Your task to perform on an android device: find photos in the google photos app Image 0: 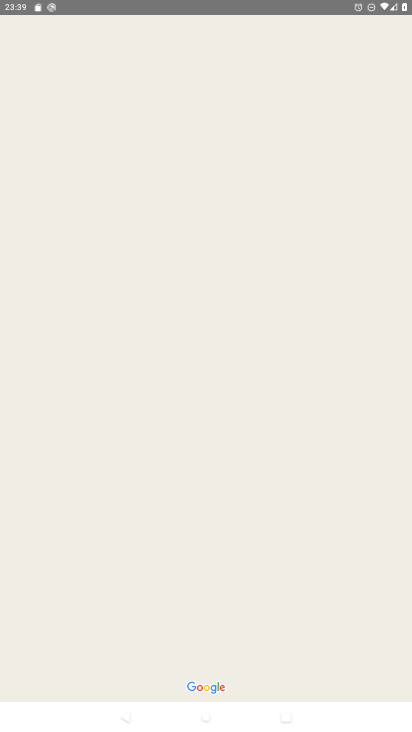
Step 0: click (200, 159)
Your task to perform on an android device: find photos in the google photos app Image 1: 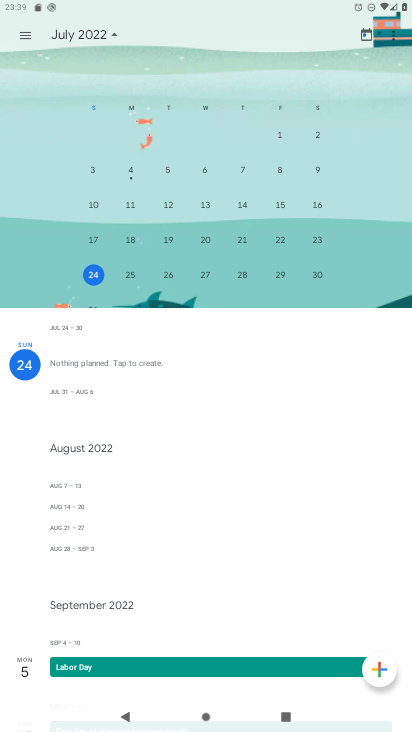
Step 1: drag from (234, 618) to (308, 64)
Your task to perform on an android device: find photos in the google photos app Image 2: 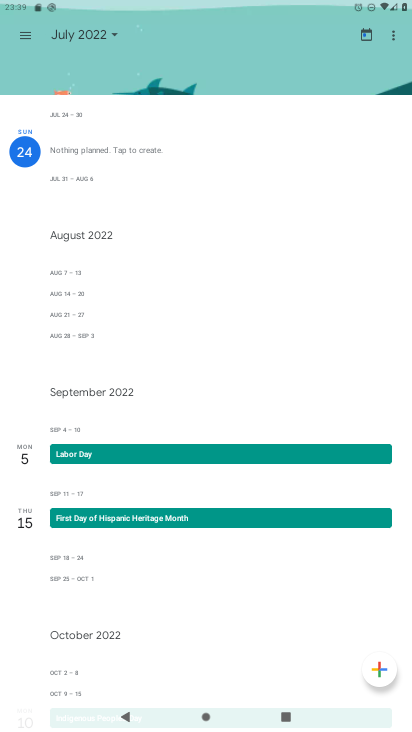
Step 2: drag from (237, 253) to (226, 670)
Your task to perform on an android device: find photos in the google photos app Image 3: 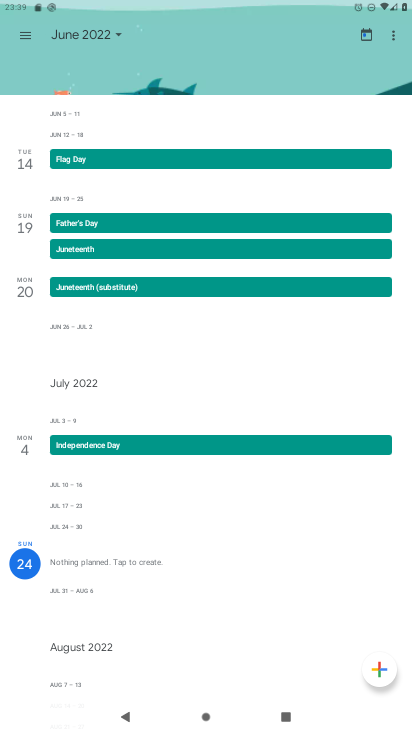
Step 3: press home button
Your task to perform on an android device: find photos in the google photos app Image 4: 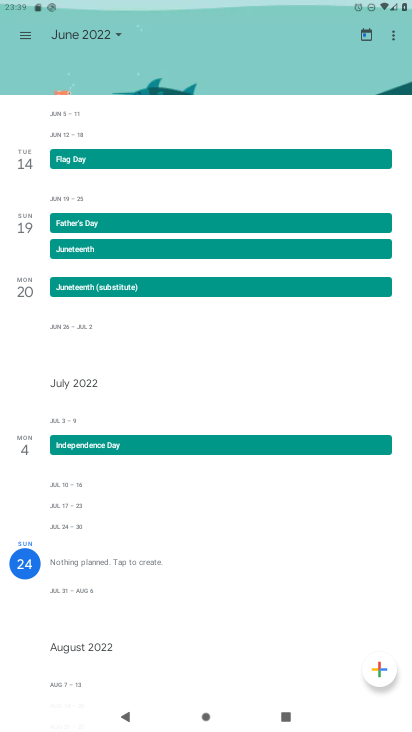
Step 4: drag from (189, 72) to (198, 4)
Your task to perform on an android device: find photos in the google photos app Image 5: 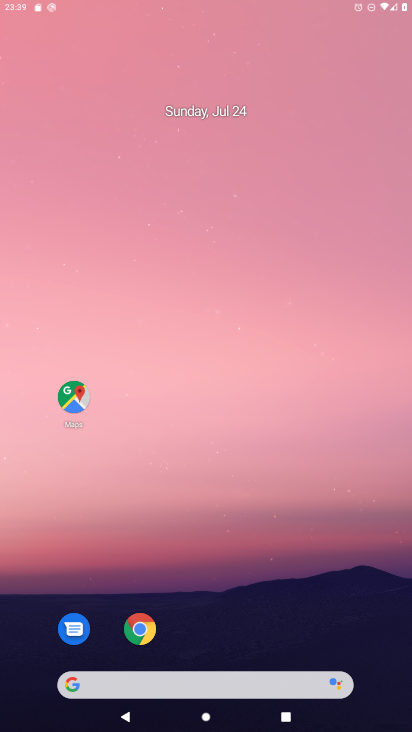
Step 5: press home button
Your task to perform on an android device: find photos in the google photos app Image 6: 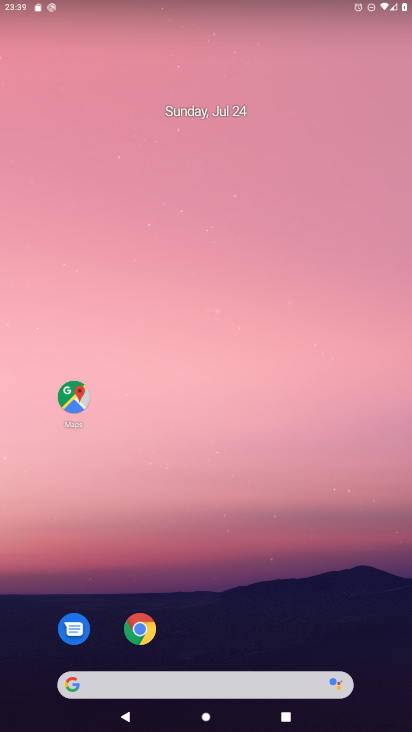
Step 6: drag from (205, 646) to (183, 4)
Your task to perform on an android device: find photos in the google photos app Image 7: 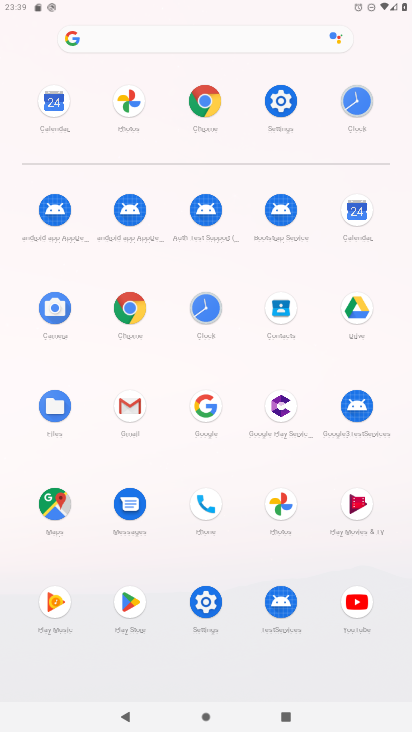
Step 7: click (274, 504)
Your task to perform on an android device: find photos in the google photos app Image 8: 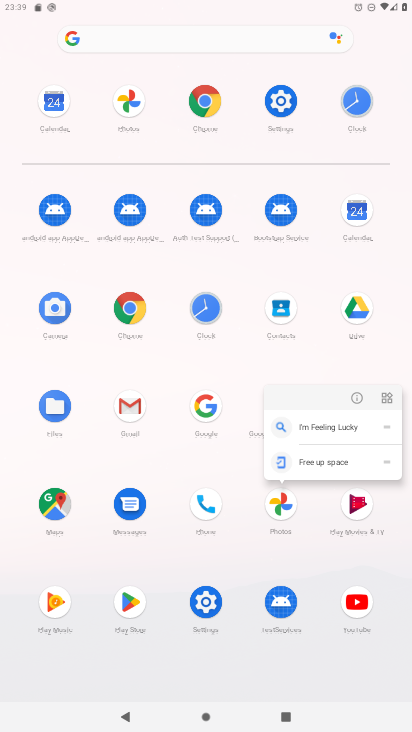
Step 8: click (346, 397)
Your task to perform on an android device: find photos in the google photos app Image 9: 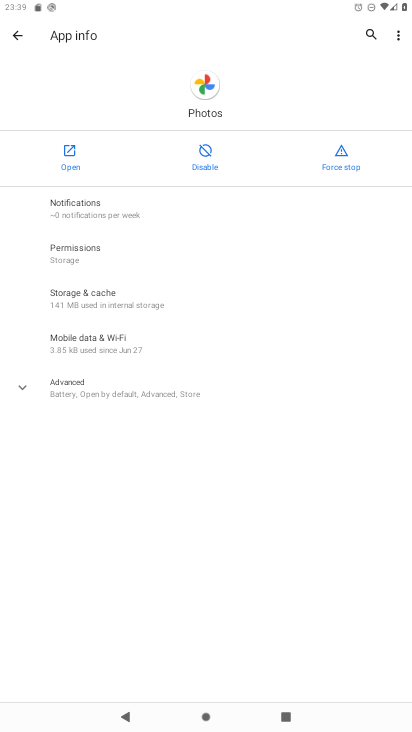
Step 9: click (76, 157)
Your task to perform on an android device: find photos in the google photos app Image 10: 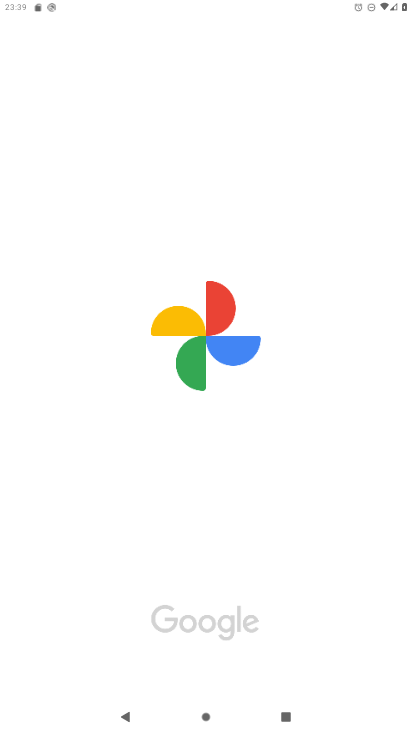
Step 10: drag from (267, 527) to (238, 263)
Your task to perform on an android device: find photos in the google photos app Image 11: 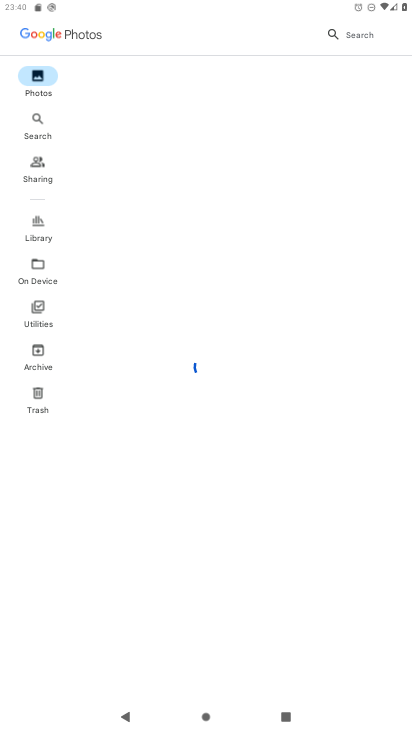
Step 11: drag from (181, 570) to (169, 281)
Your task to perform on an android device: find photos in the google photos app Image 12: 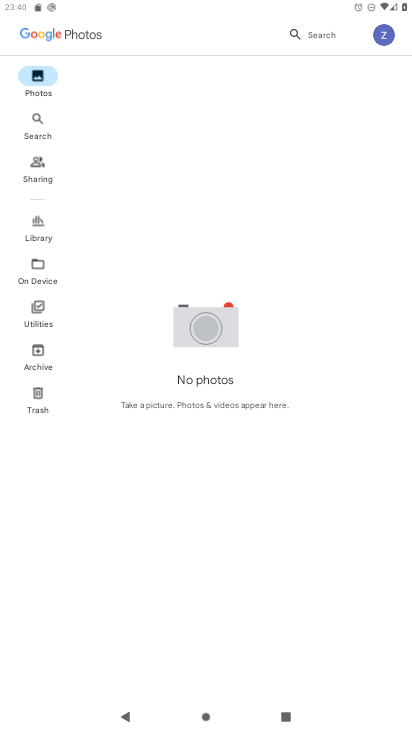
Step 12: click (35, 81)
Your task to perform on an android device: find photos in the google photos app Image 13: 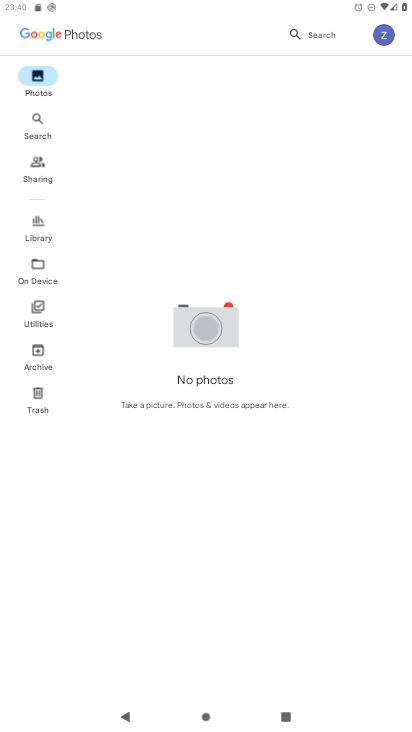
Step 13: drag from (212, 579) to (215, 334)
Your task to perform on an android device: find photos in the google photos app Image 14: 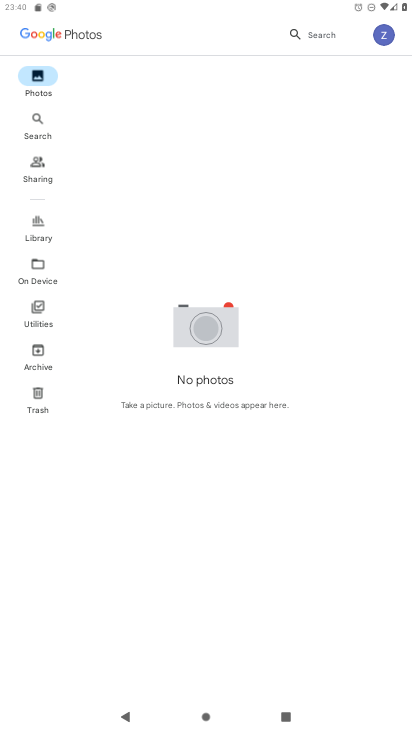
Step 14: click (198, 184)
Your task to perform on an android device: find photos in the google photos app Image 15: 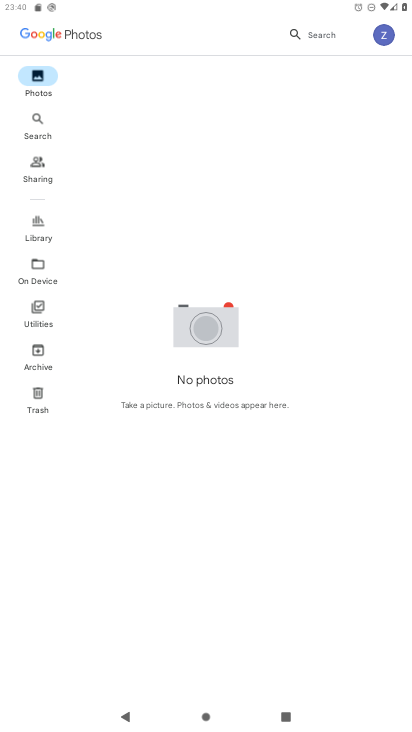
Step 15: click (201, 170)
Your task to perform on an android device: find photos in the google photos app Image 16: 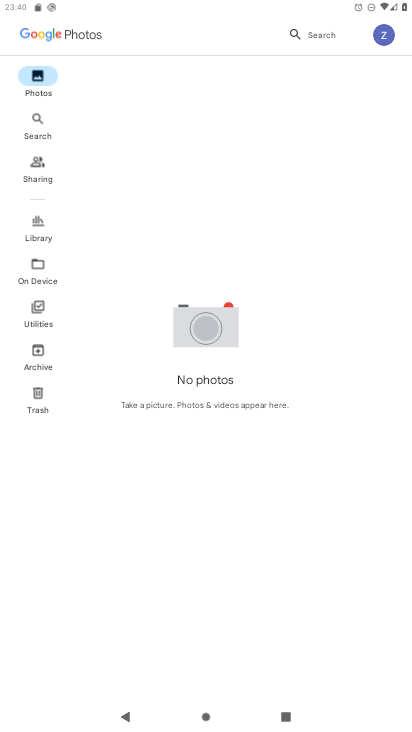
Step 16: click (201, 170)
Your task to perform on an android device: find photos in the google photos app Image 17: 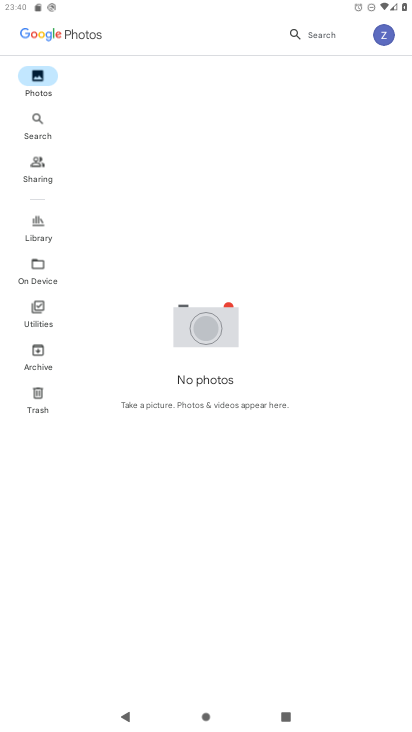
Step 17: click (261, 199)
Your task to perform on an android device: find photos in the google photos app Image 18: 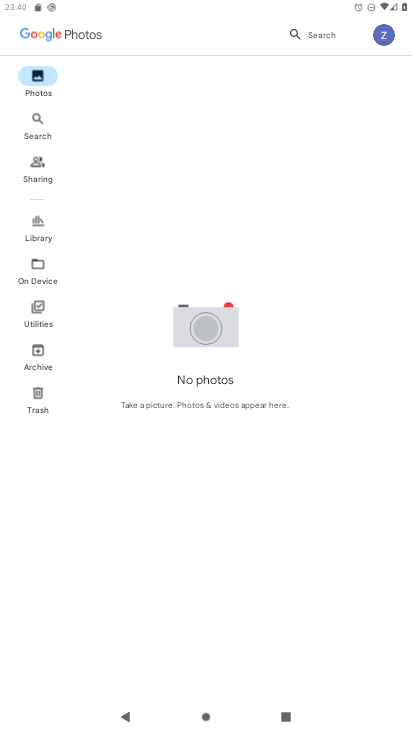
Step 18: click (184, 435)
Your task to perform on an android device: find photos in the google photos app Image 19: 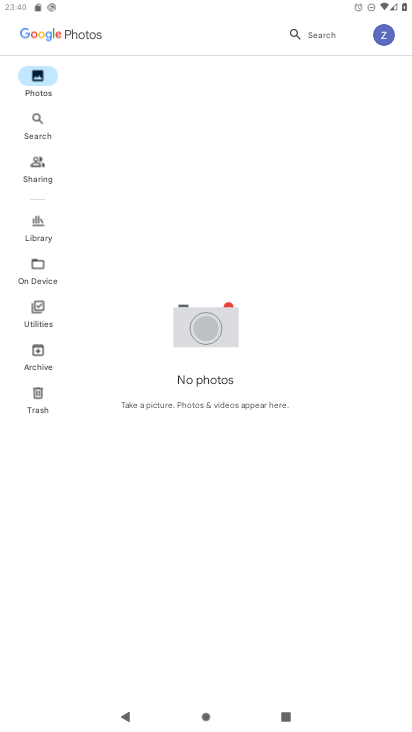
Step 19: click (206, 265)
Your task to perform on an android device: find photos in the google photos app Image 20: 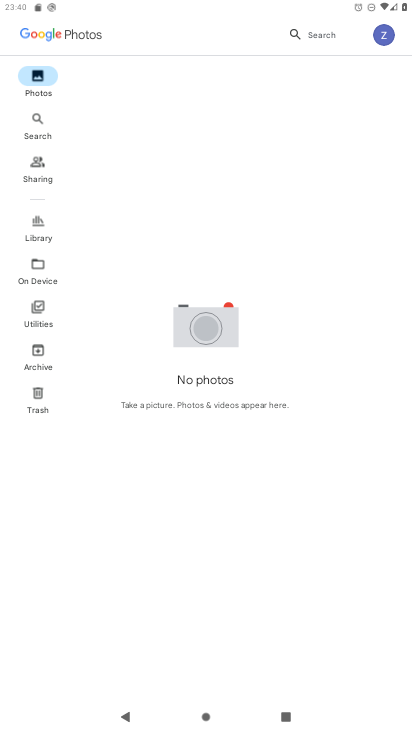
Step 20: click (206, 264)
Your task to perform on an android device: find photos in the google photos app Image 21: 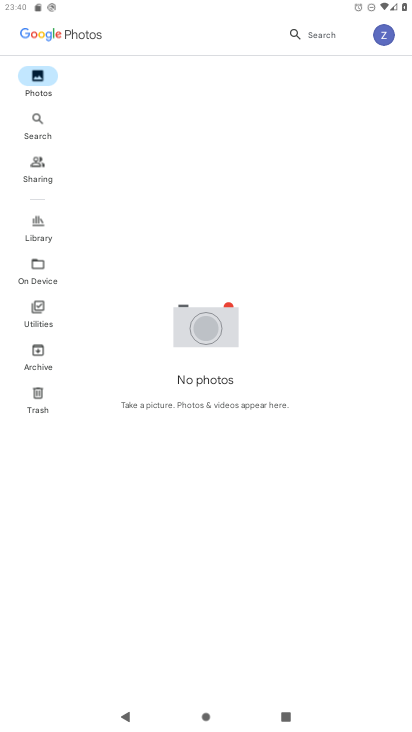
Step 21: click (231, 288)
Your task to perform on an android device: find photos in the google photos app Image 22: 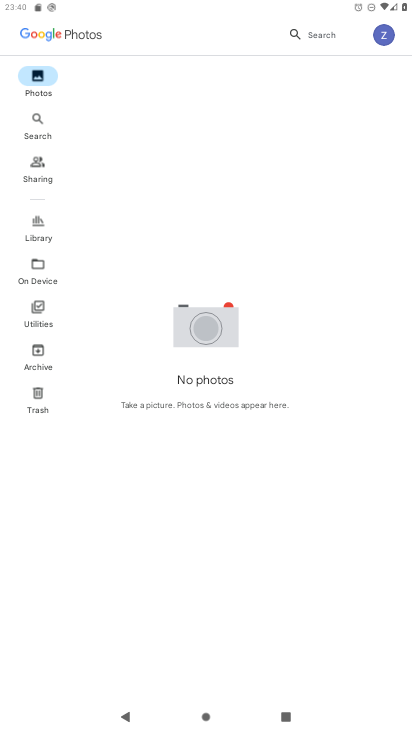
Step 22: click (173, 284)
Your task to perform on an android device: find photos in the google photos app Image 23: 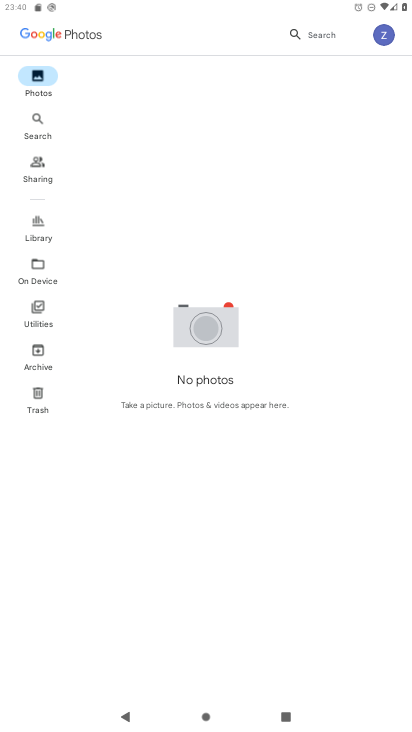
Step 23: click (173, 284)
Your task to perform on an android device: find photos in the google photos app Image 24: 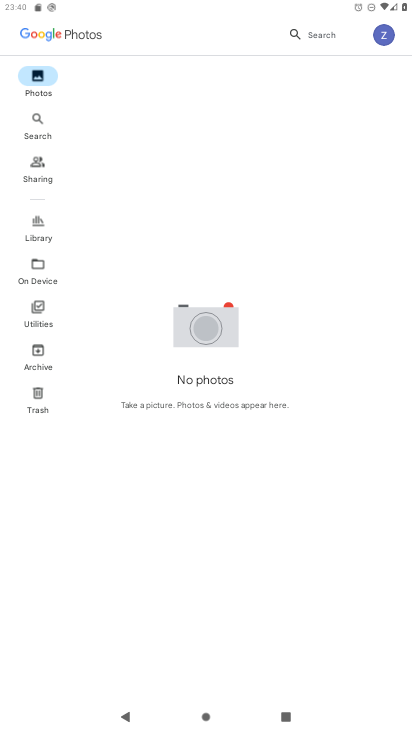
Step 24: click (175, 284)
Your task to perform on an android device: find photos in the google photos app Image 25: 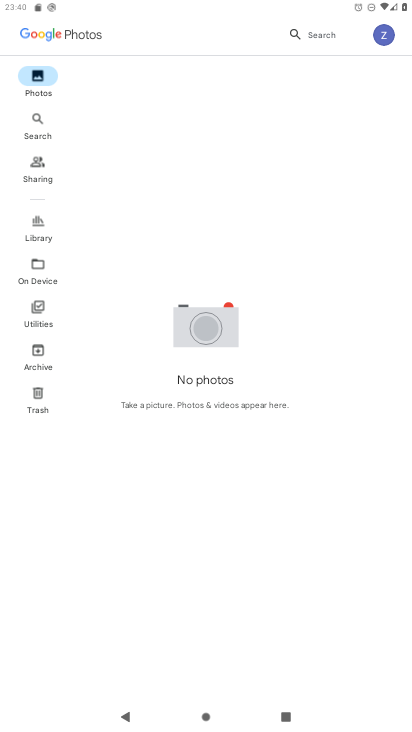
Step 25: click (173, 285)
Your task to perform on an android device: find photos in the google photos app Image 26: 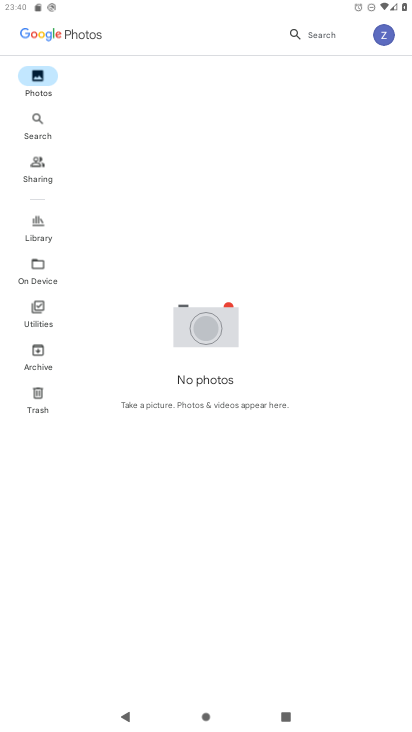
Step 26: click (178, 292)
Your task to perform on an android device: find photos in the google photos app Image 27: 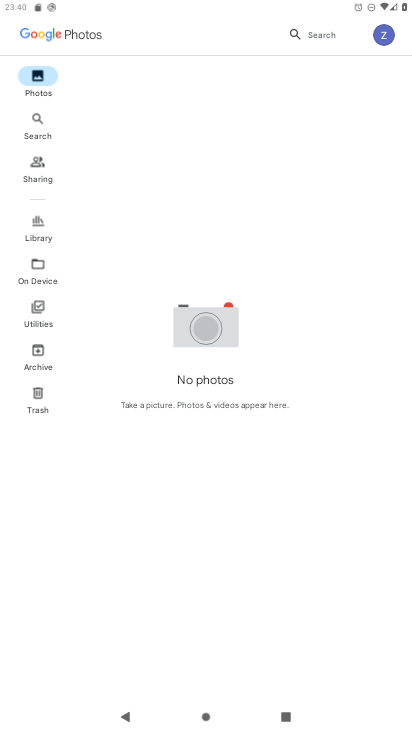
Step 27: drag from (237, 268) to (260, 171)
Your task to perform on an android device: find photos in the google photos app Image 28: 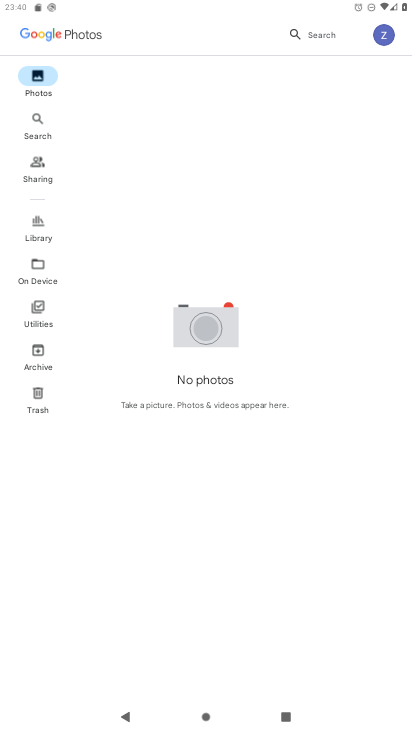
Step 28: click (285, 121)
Your task to perform on an android device: find photos in the google photos app Image 29: 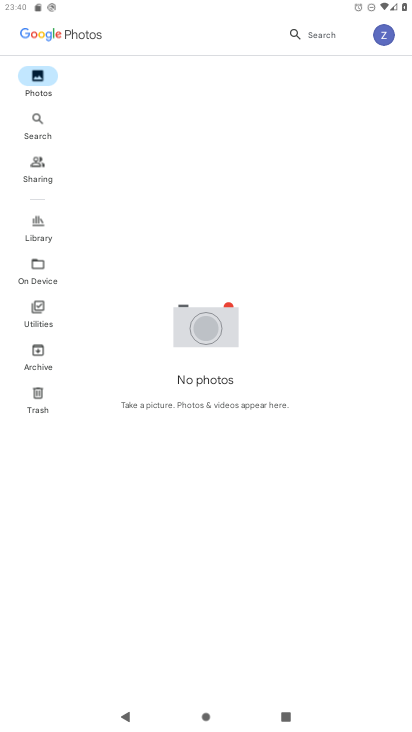
Step 29: drag from (288, 168) to (250, 237)
Your task to perform on an android device: find photos in the google photos app Image 30: 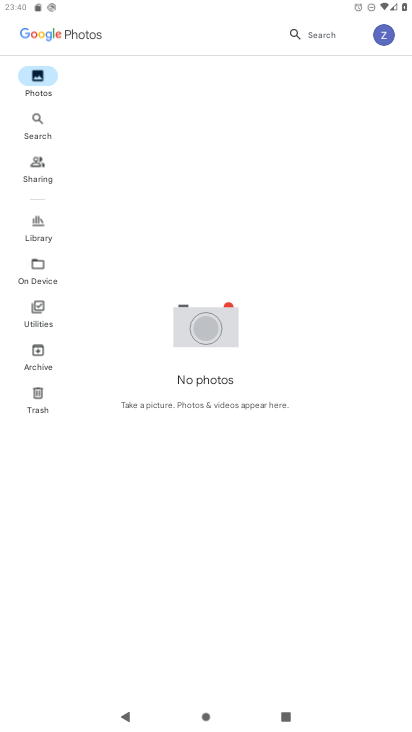
Step 30: drag from (236, 365) to (154, 276)
Your task to perform on an android device: find photos in the google photos app Image 31: 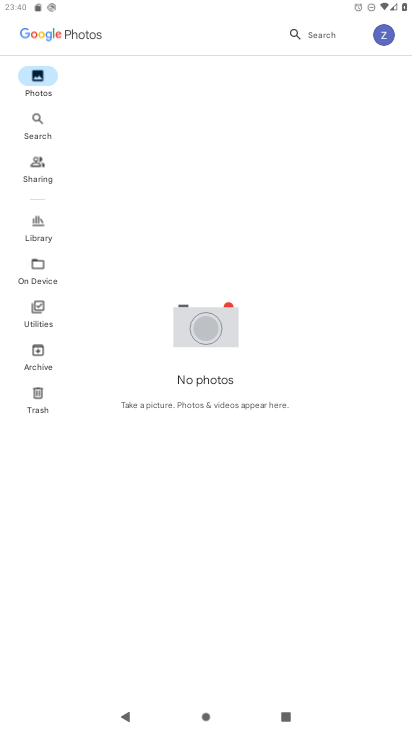
Step 31: click (152, 275)
Your task to perform on an android device: find photos in the google photos app Image 32: 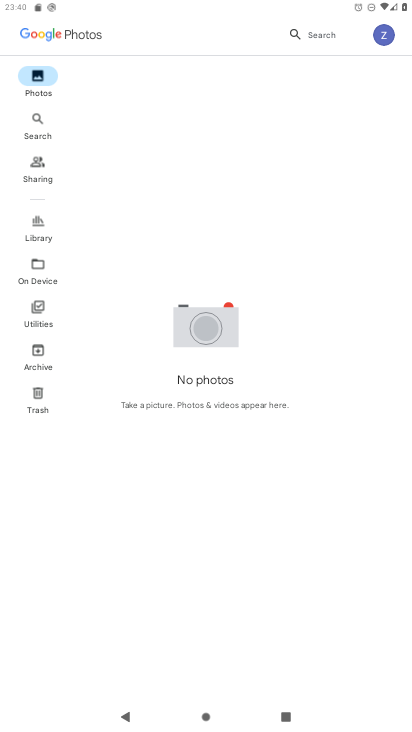
Step 32: drag from (216, 246) to (229, 199)
Your task to perform on an android device: find photos in the google photos app Image 33: 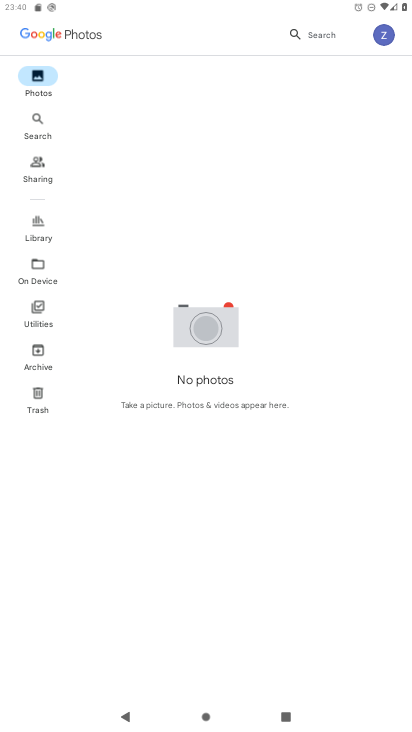
Step 33: click (222, 157)
Your task to perform on an android device: find photos in the google photos app Image 34: 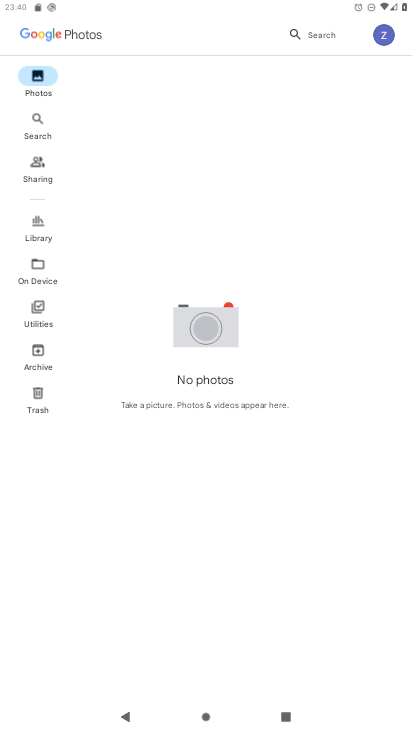
Step 34: drag from (215, 409) to (232, 324)
Your task to perform on an android device: find photos in the google photos app Image 35: 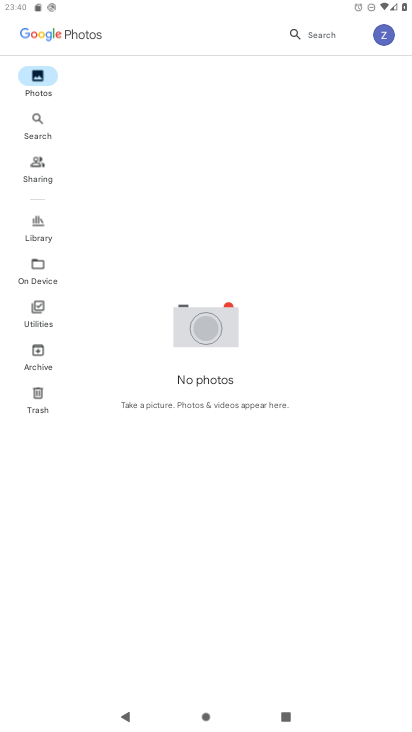
Step 35: click (227, 260)
Your task to perform on an android device: find photos in the google photos app Image 36: 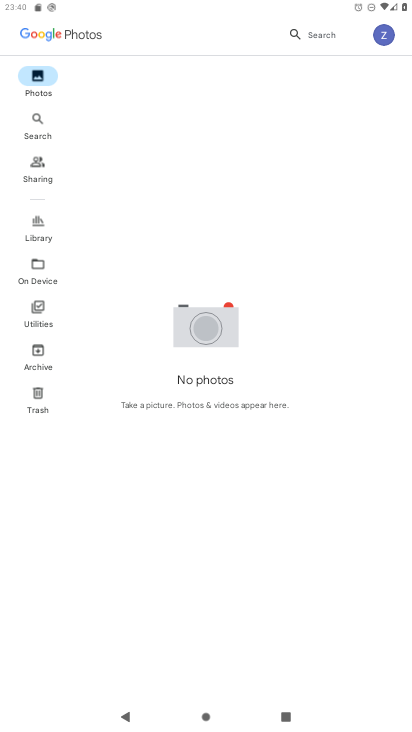
Step 36: click (215, 216)
Your task to perform on an android device: find photos in the google photos app Image 37: 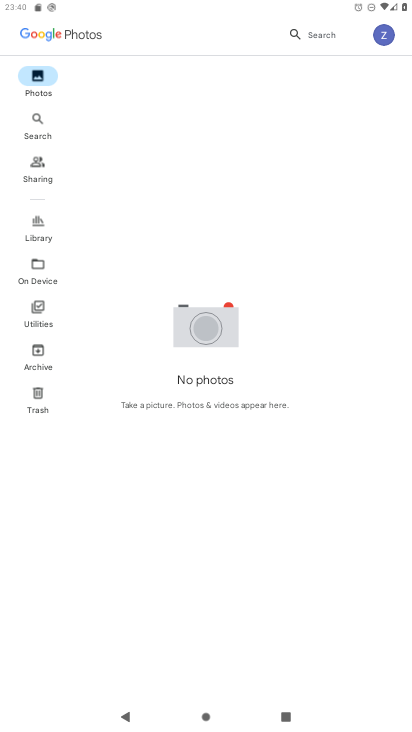
Step 37: click (215, 216)
Your task to perform on an android device: find photos in the google photos app Image 38: 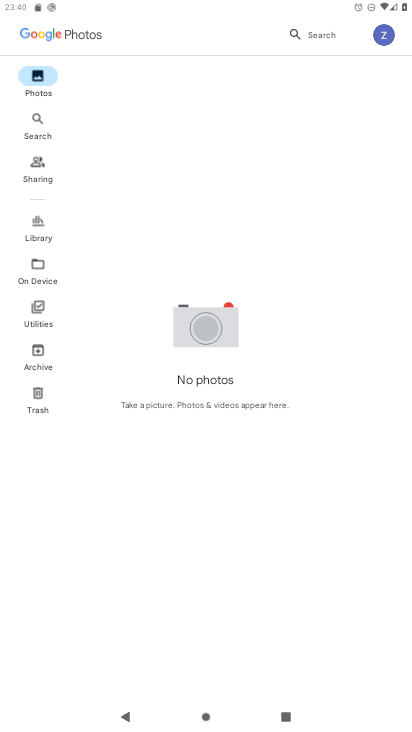
Step 38: click (285, 172)
Your task to perform on an android device: find photos in the google photos app Image 39: 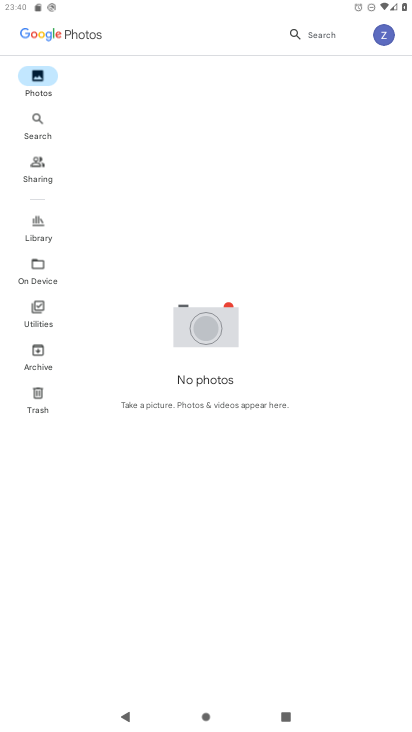
Step 39: drag from (227, 588) to (262, 432)
Your task to perform on an android device: find photos in the google photos app Image 40: 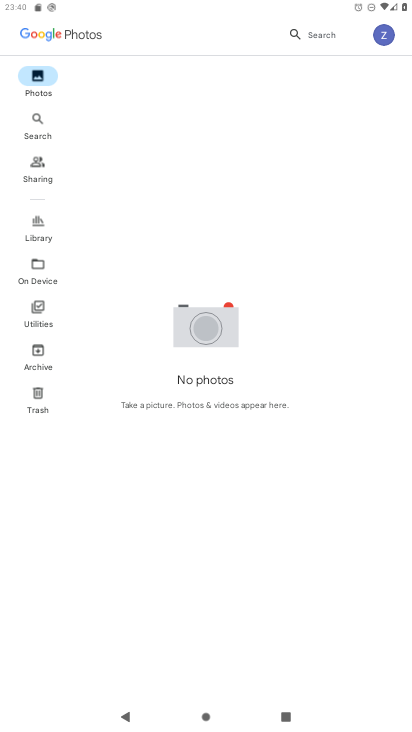
Step 40: click (233, 230)
Your task to perform on an android device: find photos in the google photos app Image 41: 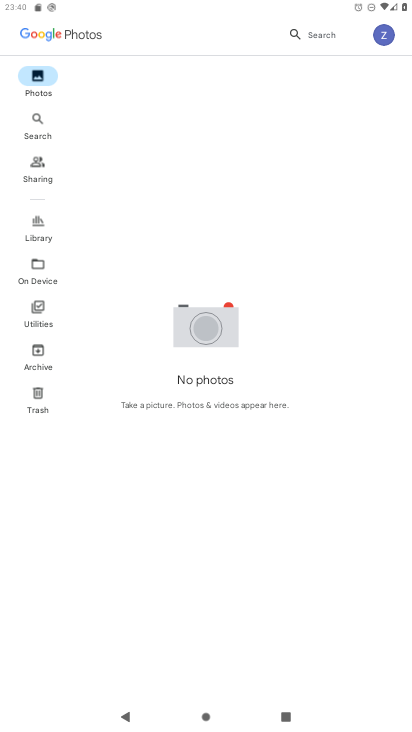
Step 41: task complete